Your task to perform on an android device: What's on my calendar today? Image 0: 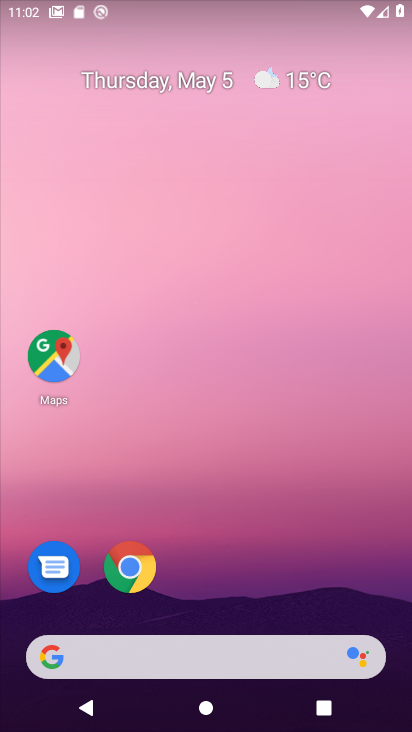
Step 0: drag from (342, 626) to (351, 55)
Your task to perform on an android device: What's on my calendar today? Image 1: 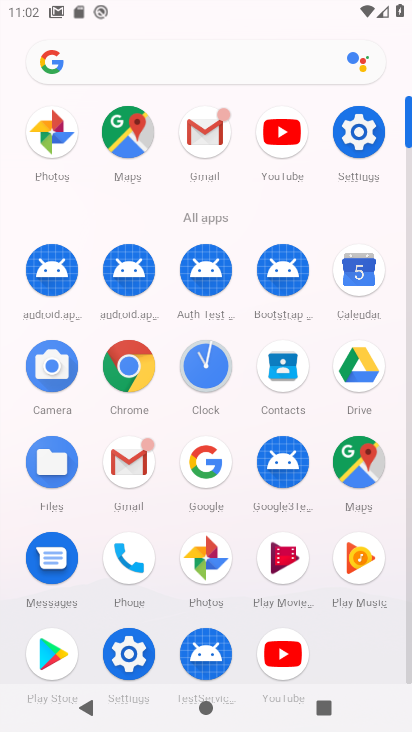
Step 1: click (367, 281)
Your task to perform on an android device: What's on my calendar today? Image 2: 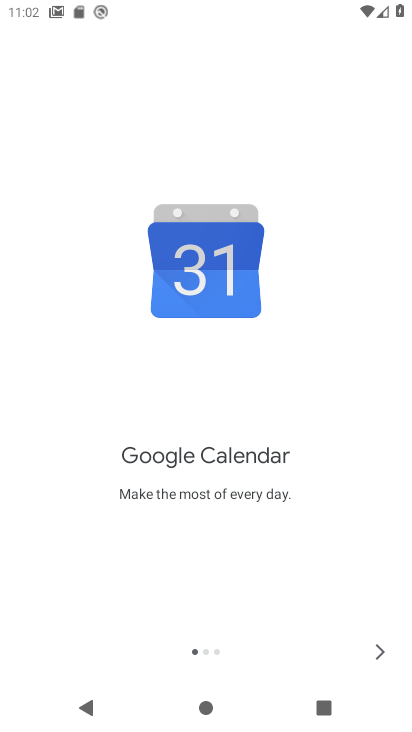
Step 2: click (373, 652)
Your task to perform on an android device: What's on my calendar today? Image 3: 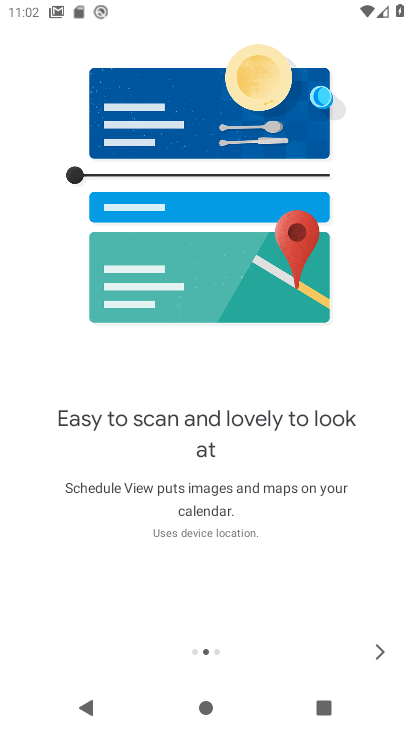
Step 3: click (373, 652)
Your task to perform on an android device: What's on my calendar today? Image 4: 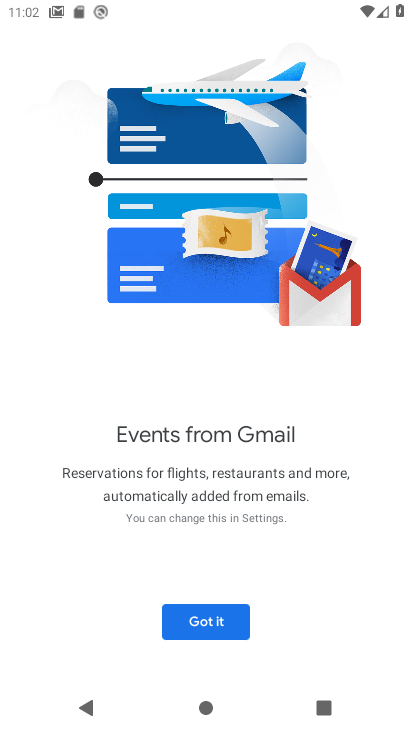
Step 4: click (149, 626)
Your task to perform on an android device: What's on my calendar today? Image 5: 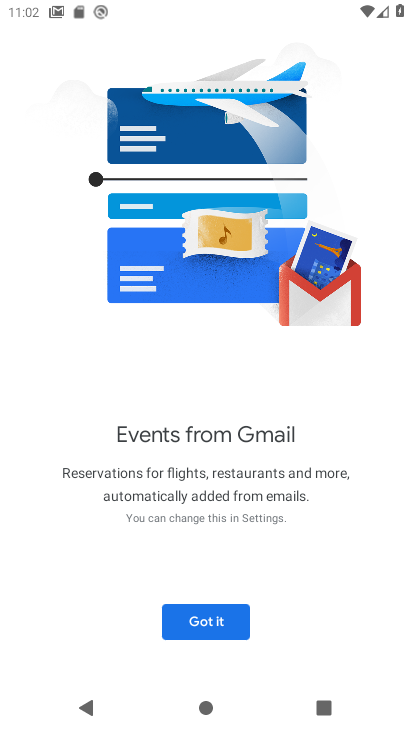
Step 5: click (218, 626)
Your task to perform on an android device: What's on my calendar today? Image 6: 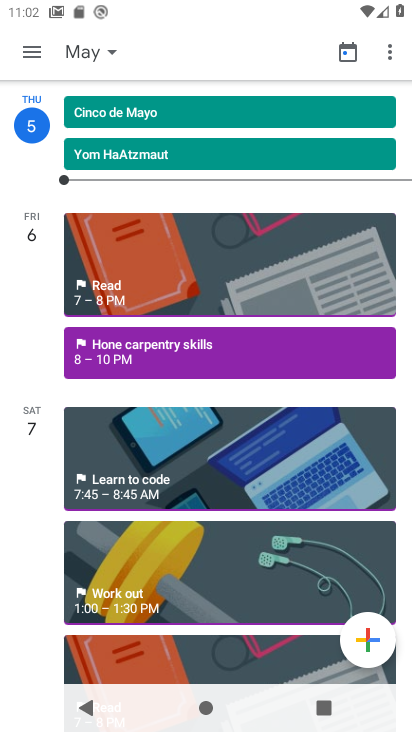
Step 6: click (110, 48)
Your task to perform on an android device: What's on my calendar today? Image 7: 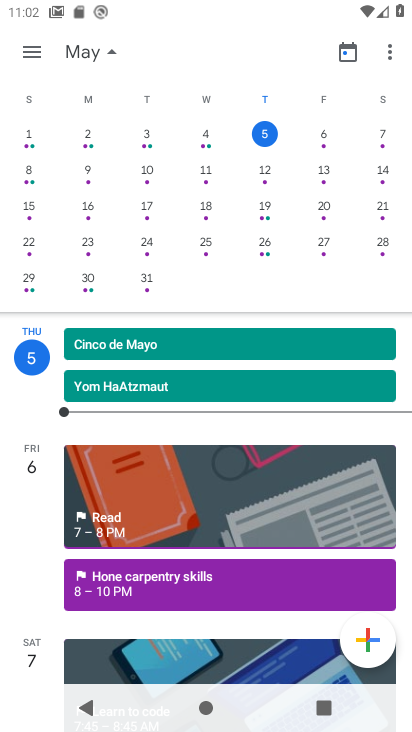
Step 7: click (268, 133)
Your task to perform on an android device: What's on my calendar today? Image 8: 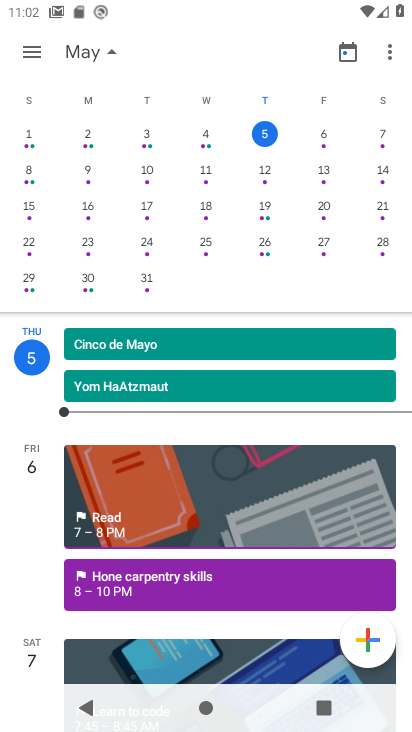
Step 8: click (164, 391)
Your task to perform on an android device: What's on my calendar today? Image 9: 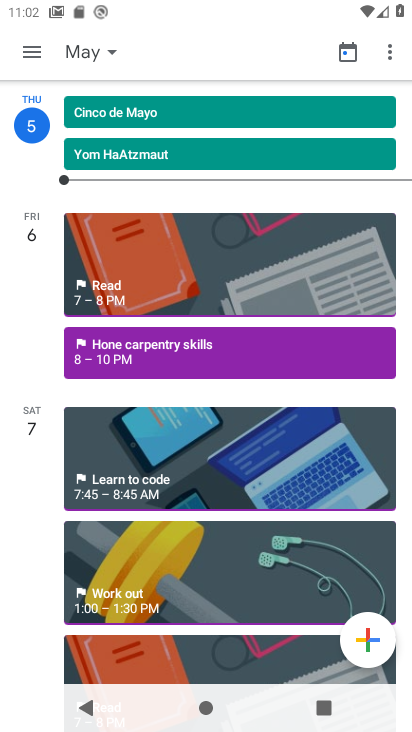
Step 9: click (154, 158)
Your task to perform on an android device: What's on my calendar today? Image 10: 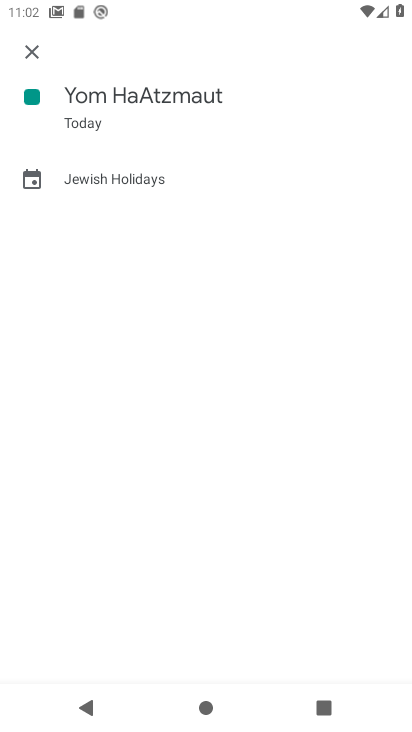
Step 10: task complete